Your task to perform on an android device: Open Reddit.com Image 0: 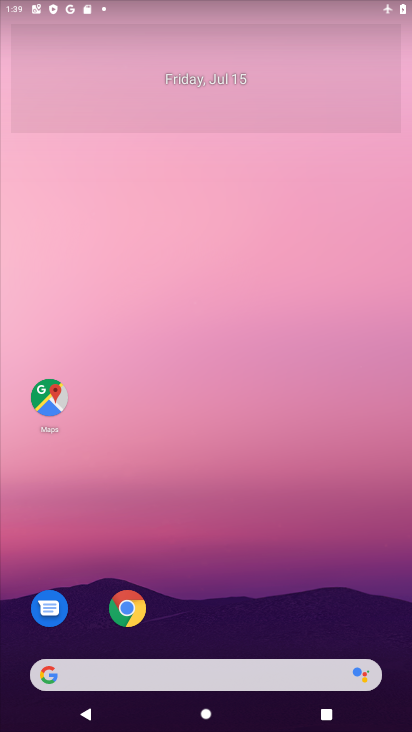
Step 0: click (173, 676)
Your task to perform on an android device: Open Reddit.com Image 1: 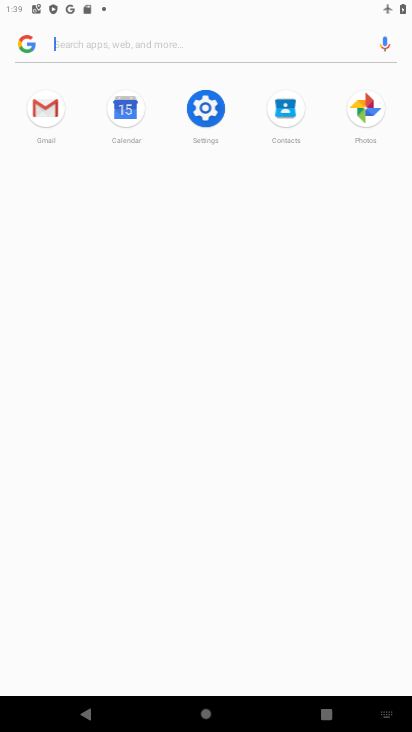
Step 1: click (234, 43)
Your task to perform on an android device: Open Reddit.com Image 2: 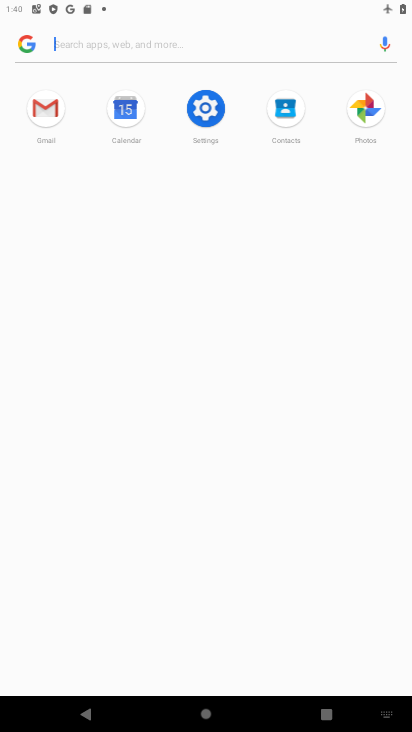
Step 2: type "reddit.com"
Your task to perform on an android device: Open Reddit.com Image 3: 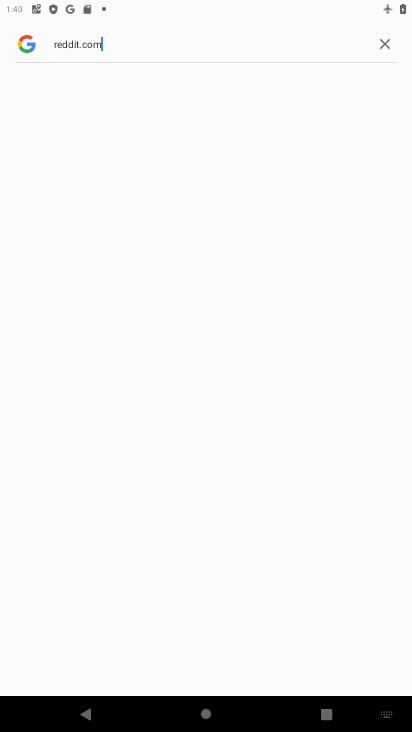
Step 3: task complete